Your task to perform on an android device: Open wifi settings Image 0: 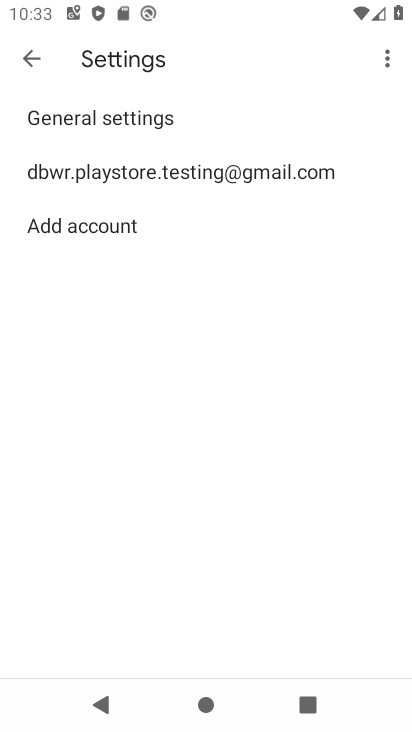
Step 0: press home button
Your task to perform on an android device: Open wifi settings Image 1: 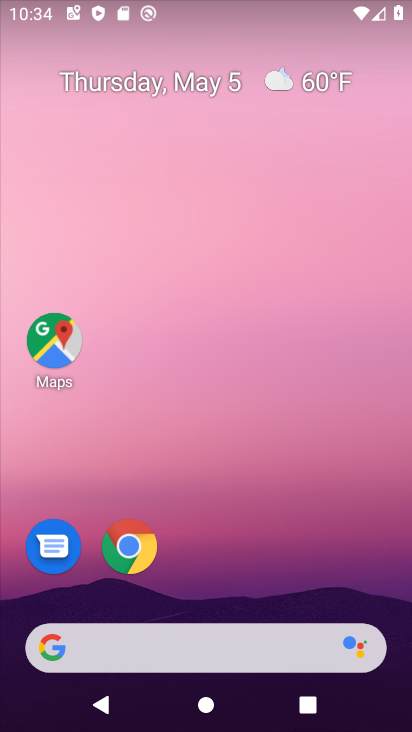
Step 1: drag from (266, 597) to (331, 120)
Your task to perform on an android device: Open wifi settings Image 2: 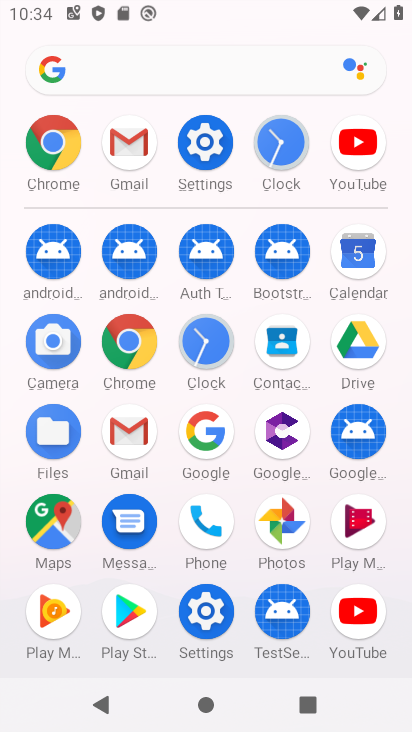
Step 2: click (200, 148)
Your task to perform on an android device: Open wifi settings Image 3: 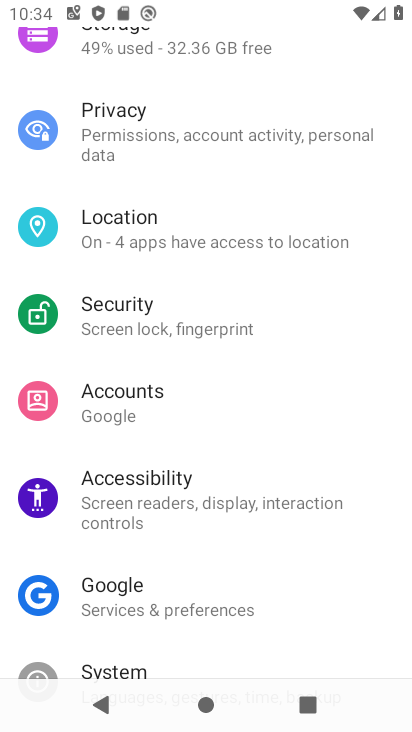
Step 3: drag from (214, 157) to (242, 230)
Your task to perform on an android device: Open wifi settings Image 4: 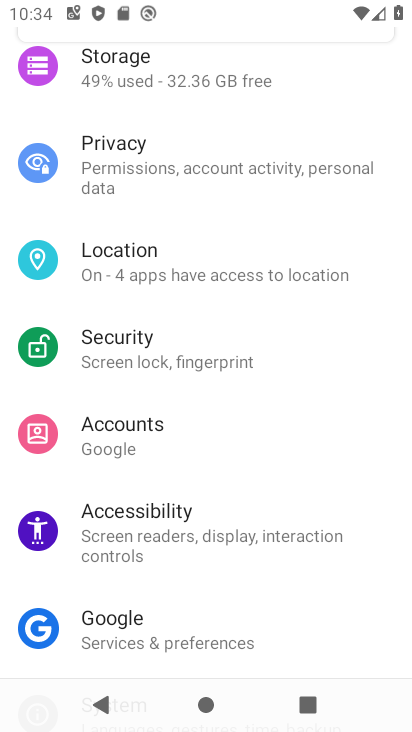
Step 4: drag from (241, 169) to (241, 224)
Your task to perform on an android device: Open wifi settings Image 5: 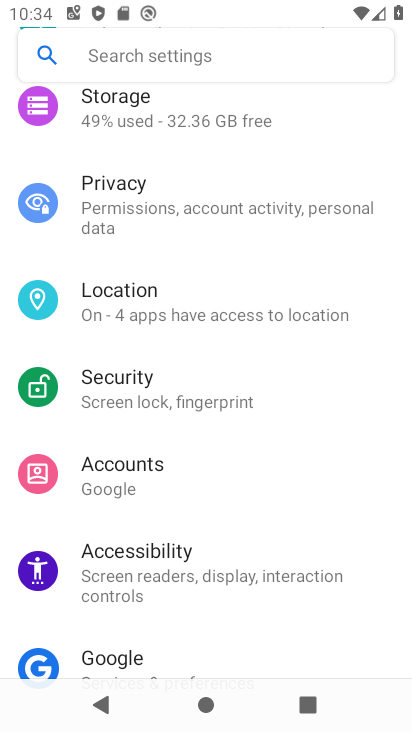
Step 5: drag from (226, 161) to (248, 231)
Your task to perform on an android device: Open wifi settings Image 6: 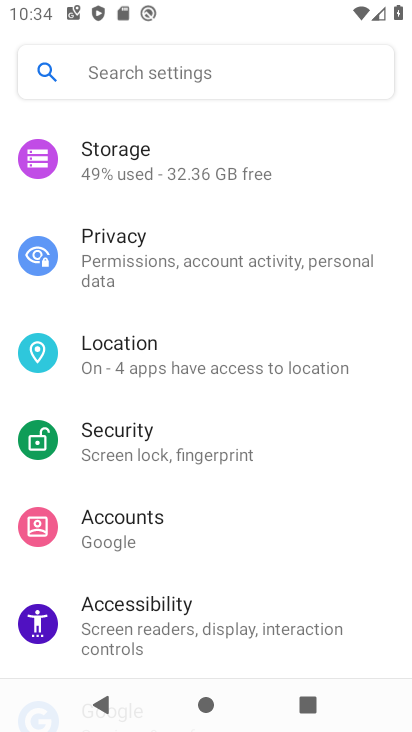
Step 6: drag from (236, 183) to (257, 286)
Your task to perform on an android device: Open wifi settings Image 7: 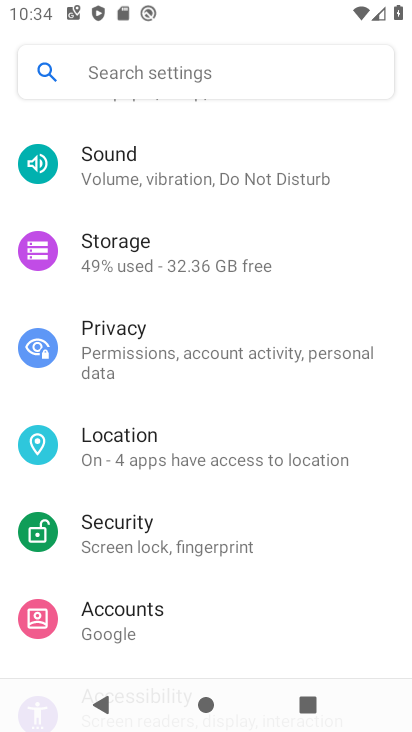
Step 7: drag from (253, 204) to (285, 296)
Your task to perform on an android device: Open wifi settings Image 8: 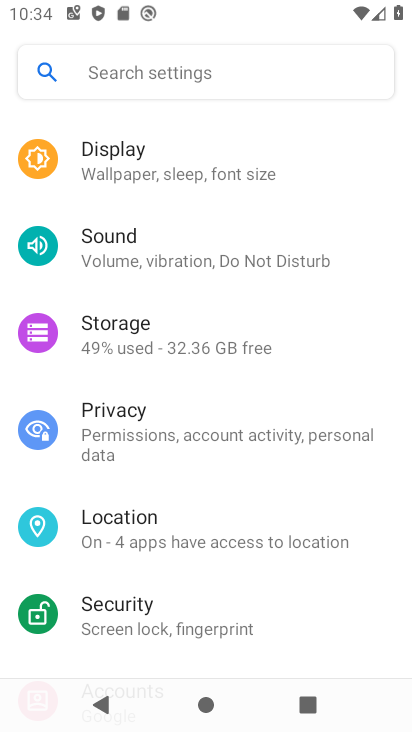
Step 8: drag from (272, 236) to (287, 314)
Your task to perform on an android device: Open wifi settings Image 9: 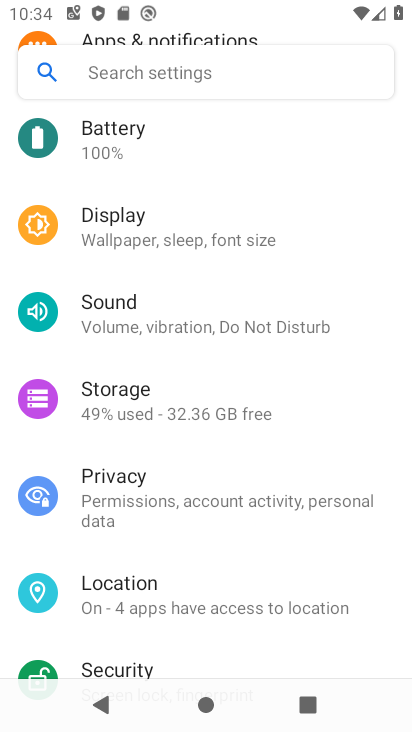
Step 9: drag from (266, 229) to (292, 312)
Your task to perform on an android device: Open wifi settings Image 10: 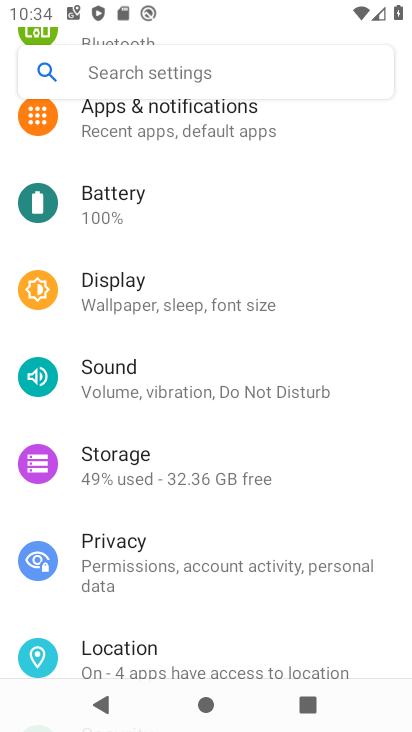
Step 10: drag from (250, 215) to (279, 337)
Your task to perform on an android device: Open wifi settings Image 11: 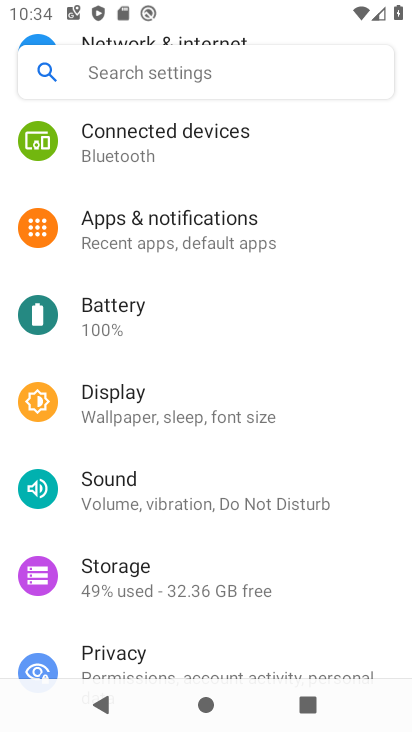
Step 11: drag from (245, 221) to (252, 434)
Your task to perform on an android device: Open wifi settings Image 12: 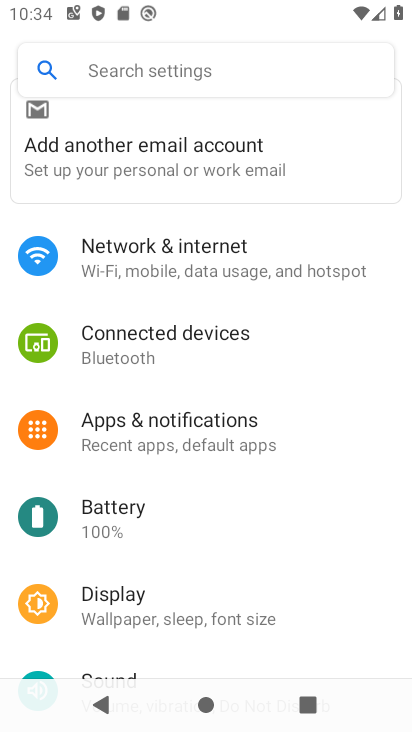
Step 12: click (202, 240)
Your task to perform on an android device: Open wifi settings Image 13: 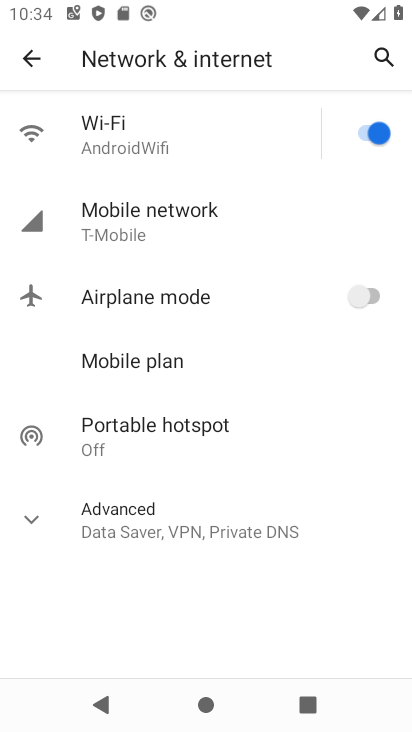
Step 13: click (141, 146)
Your task to perform on an android device: Open wifi settings Image 14: 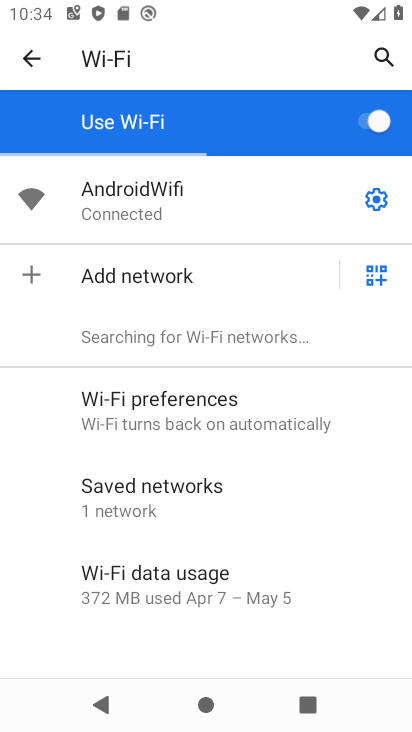
Step 14: task complete